Your task to perform on an android device: delete browsing data in the chrome app Image 0: 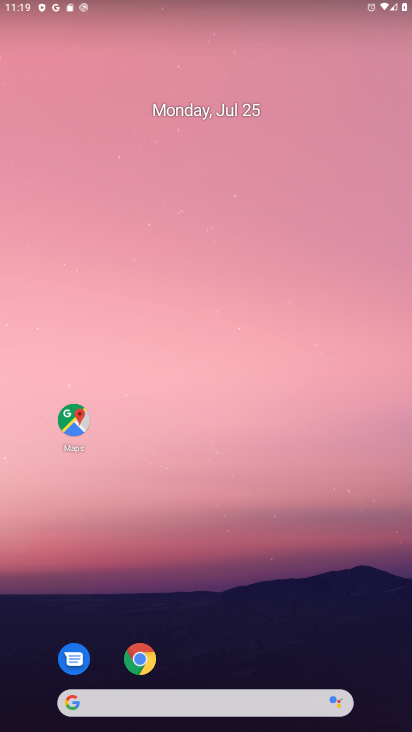
Step 0: click (145, 660)
Your task to perform on an android device: delete browsing data in the chrome app Image 1: 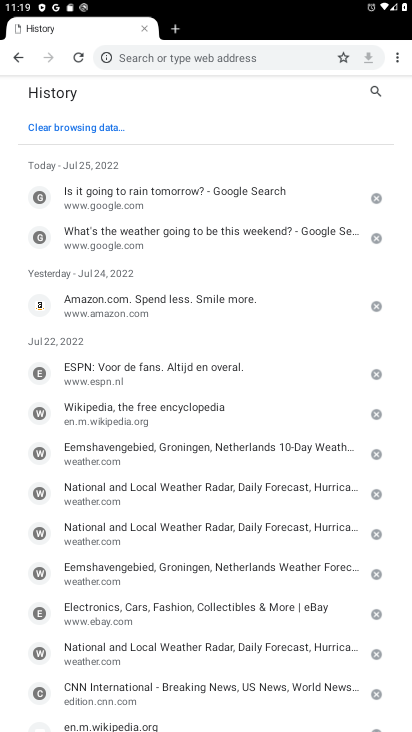
Step 1: click (65, 126)
Your task to perform on an android device: delete browsing data in the chrome app Image 2: 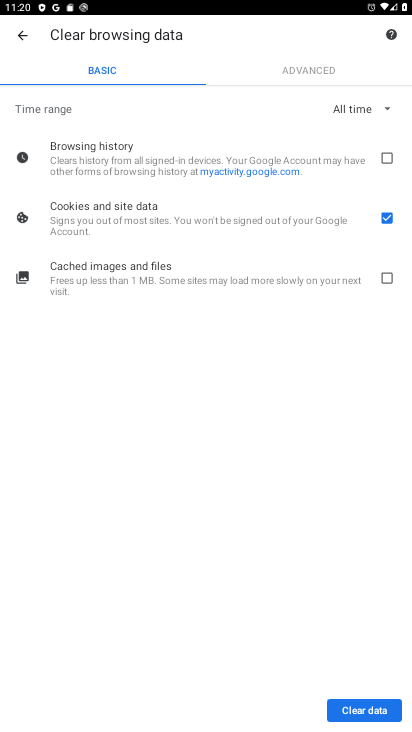
Step 2: click (389, 158)
Your task to perform on an android device: delete browsing data in the chrome app Image 3: 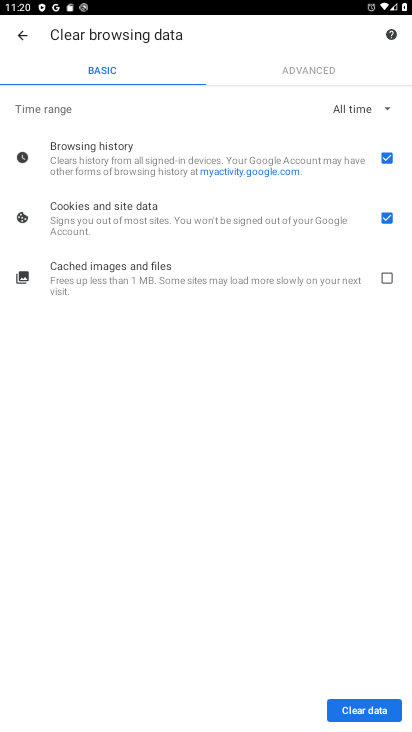
Step 3: click (383, 218)
Your task to perform on an android device: delete browsing data in the chrome app Image 4: 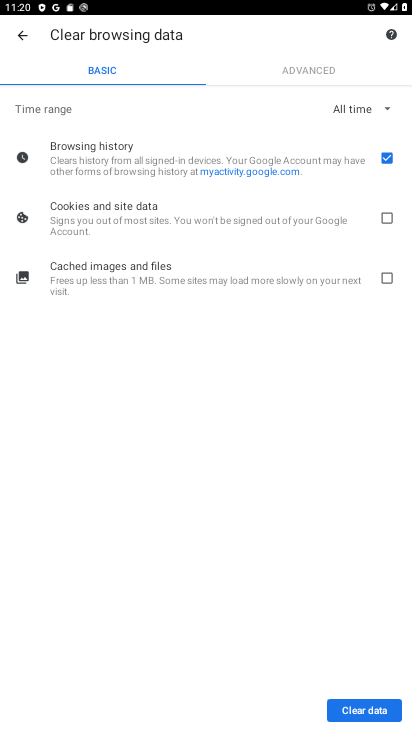
Step 4: click (359, 707)
Your task to perform on an android device: delete browsing data in the chrome app Image 5: 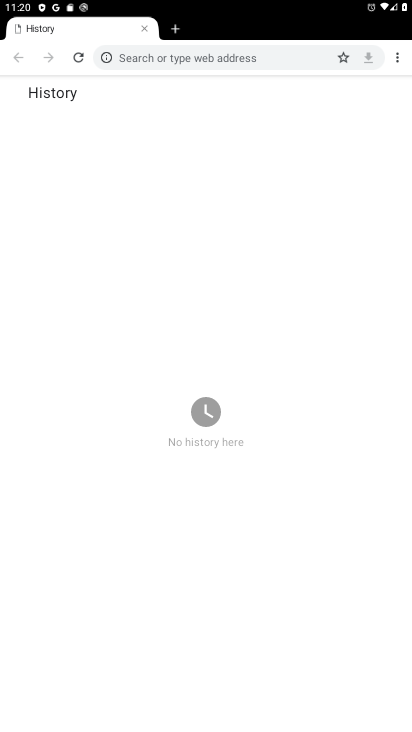
Step 5: task complete